Your task to perform on an android device: toggle pop-ups in chrome Image 0: 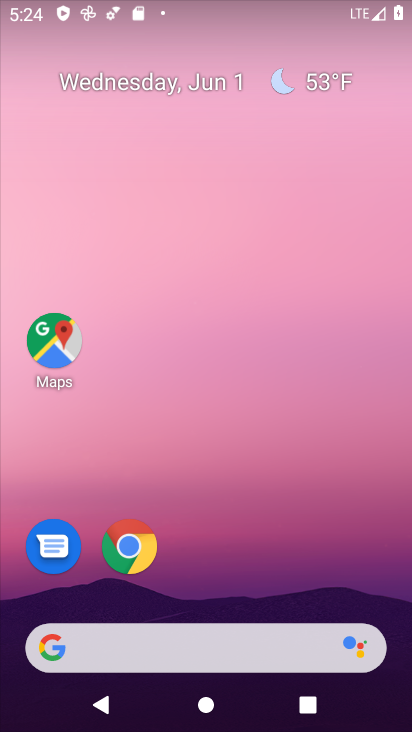
Step 0: drag from (326, 530) to (268, 28)
Your task to perform on an android device: toggle pop-ups in chrome Image 1: 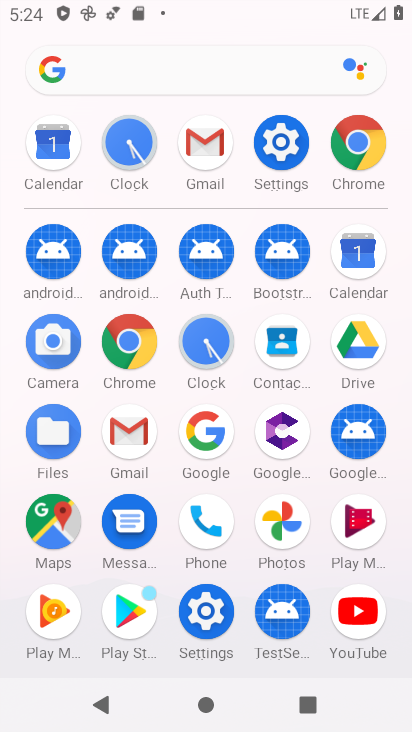
Step 1: drag from (7, 573) to (5, 288)
Your task to perform on an android device: toggle pop-ups in chrome Image 2: 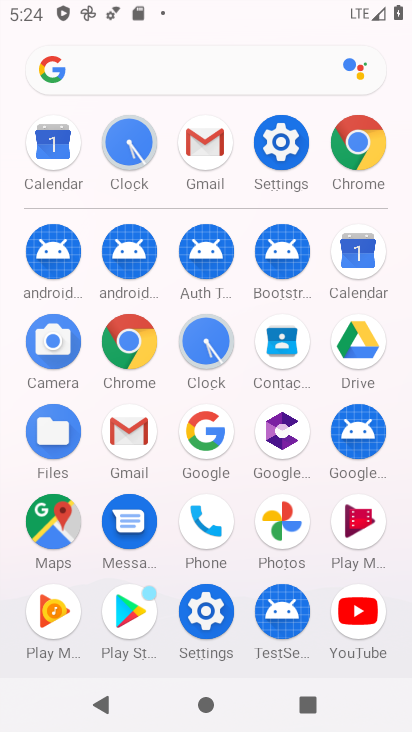
Step 2: click (129, 342)
Your task to perform on an android device: toggle pop-ups in chrome Image 3: 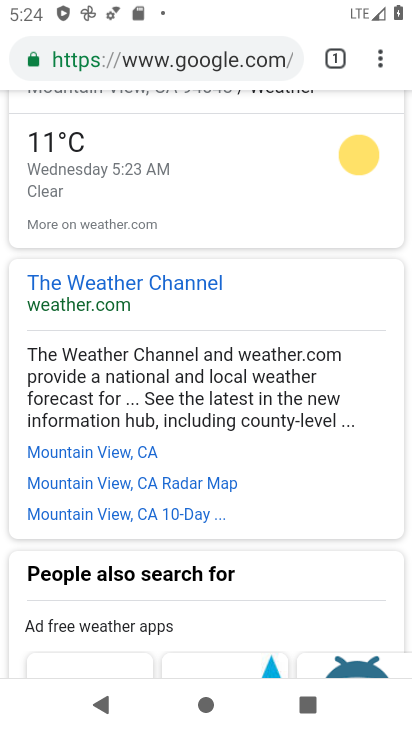
Step 3: drag from (382, 50) to (226, 575)
Your task to perform on an android device: toggle pop-ups in chrome Image 4: 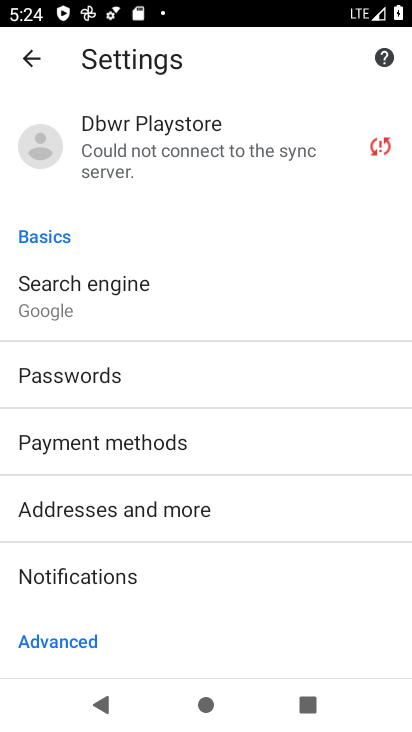
Step 4: drag from (254, 521) to (248, 117)
Your task to perform on an android device: toggle pop-ups in chrome Image 5: 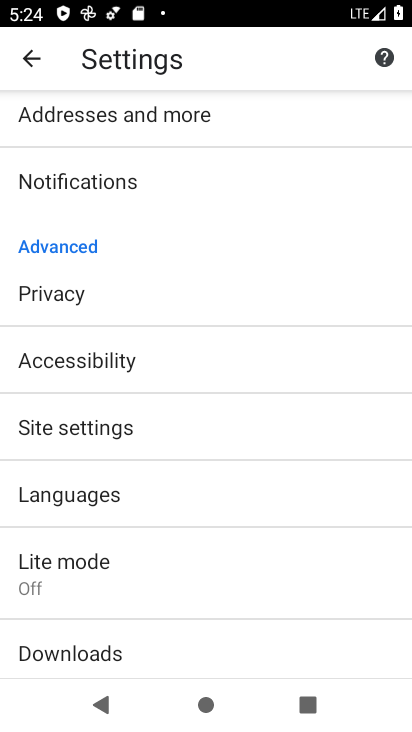
Step 5: click (118, 421)
Your task to perform on an android device: toggle pop-ups in chrome Image 6: 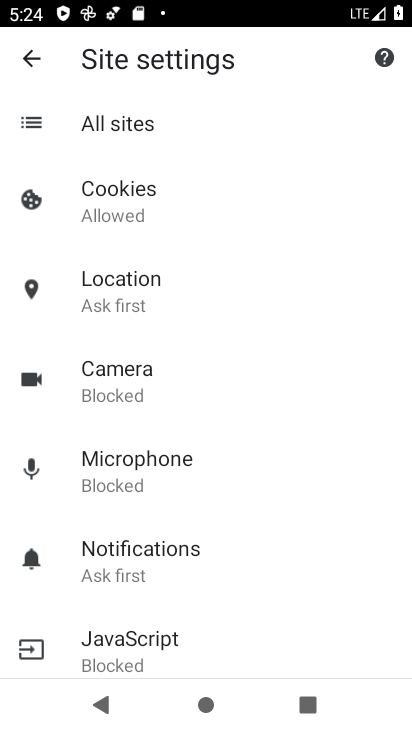
Step 6: drag from (207, 566) to (232, 235)
Your task to perform on an android device: toggle pop-ups in chrome Image 7: 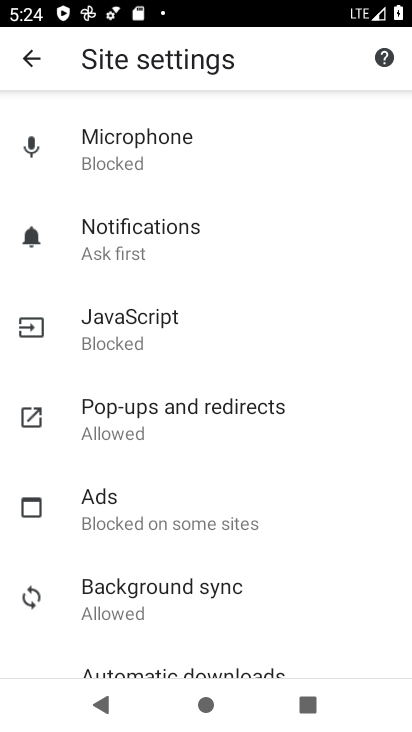
Step 7: click (191, 394)
Your task to perform on an android device: toggle pop-ups in chrome Image 8: 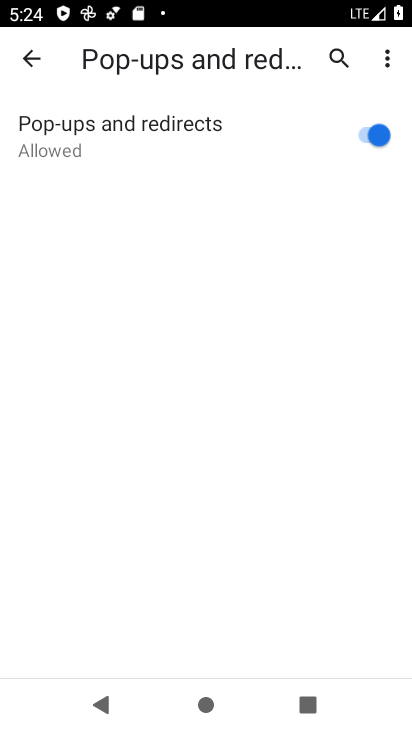
Step 8: click (368, 130)
Your task to perform on an android device: toggle pop-ups in chrome Image 9: 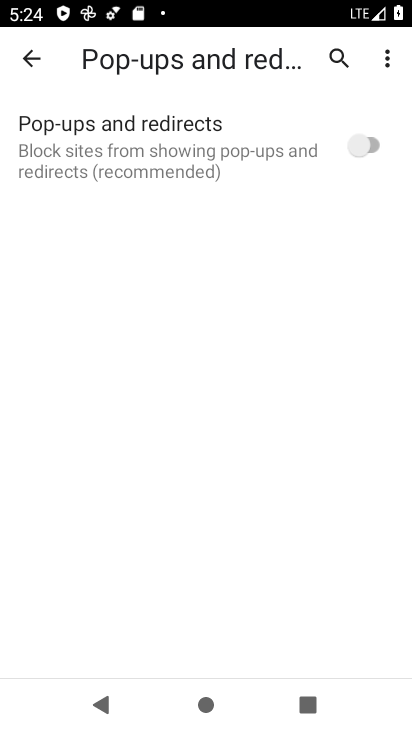
Step 9: task complete